Your task to perform on an android device: change notifications settings Image 0: 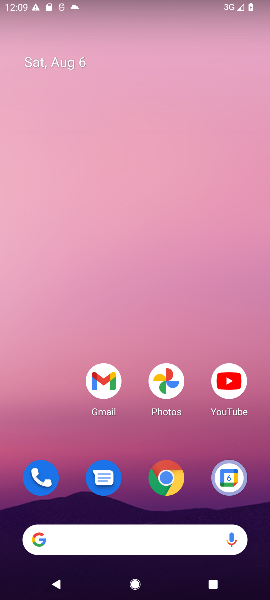
Step 0: drag from (138, 536) to (138, 157)
Your task to perform on an android device: change notifications settings Image 1: 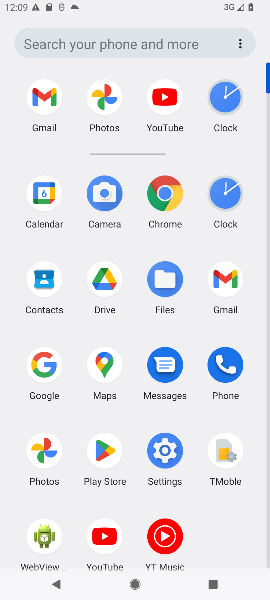
Step 1: click (163, 453)
Your task to perform on an android device: change notifications settings Image 2: 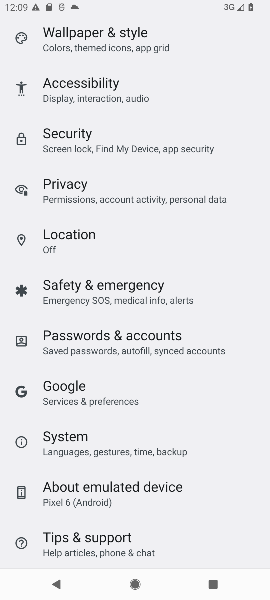
Step 2: drag from (68, 60) to (66, 429)
Your task to perform on an android device: change notifications settings Image 3: 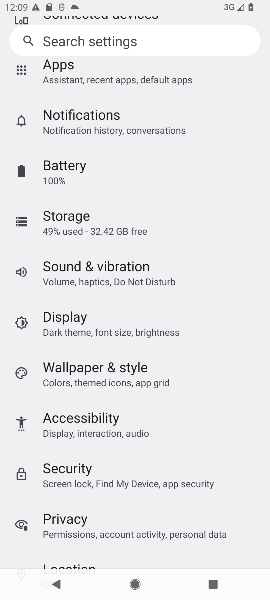
Step 3: click (85, 120)
Your task to perform on an android device: change notifications settings Image 4: 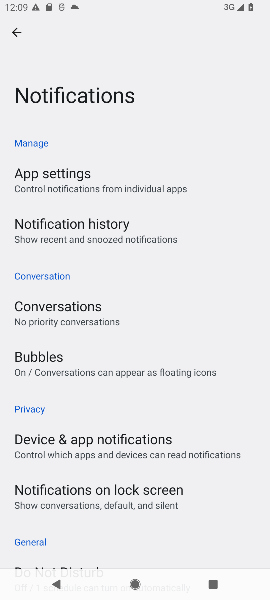
Step 4: click (47, 174)
Your task to perform on an android device: change notifications settings Image 5: 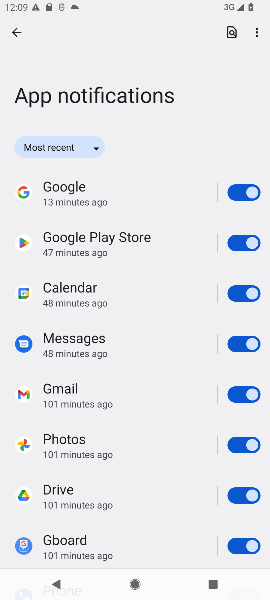
Step 5: click (238, 199)
Your task to perform on an android device: change notifications settings Image 6: 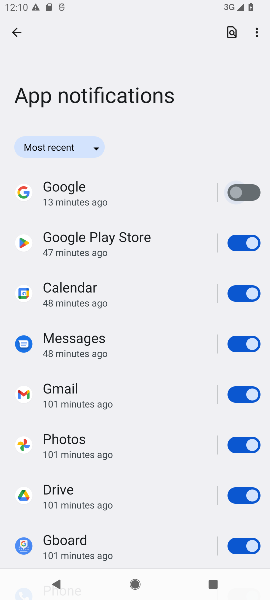
Step 6: click (238, 244)
Your task to perform on an android device: change notifications settings Image 7: 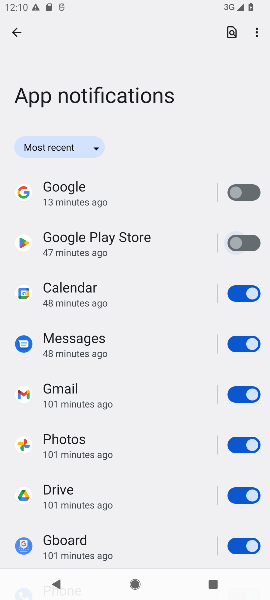
Step 7: click (231, 294)
Your task to perform on an android device: change notifications settings Image 8: 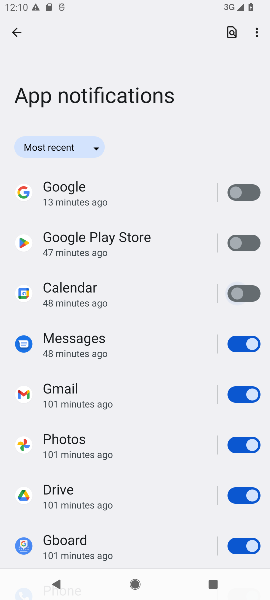
Step 8: click (238, 339)
Your task to perform on an android device: change notifications settings Image 9: 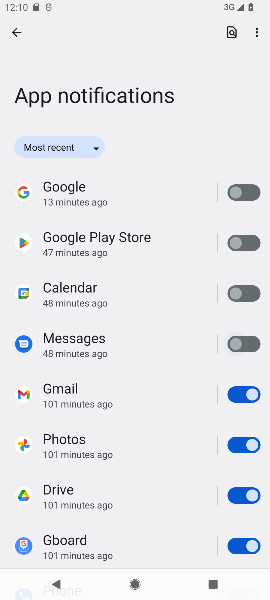
Step 9: click (242, 390)
Your task to perform on an android device: change notifications settings Image 10: 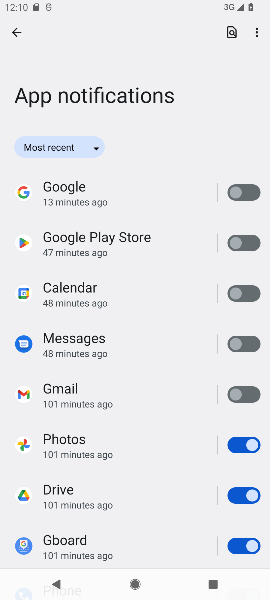
Step 10: click (239, 438)
Your task to perform on an android device: change notifications settings Image 11: 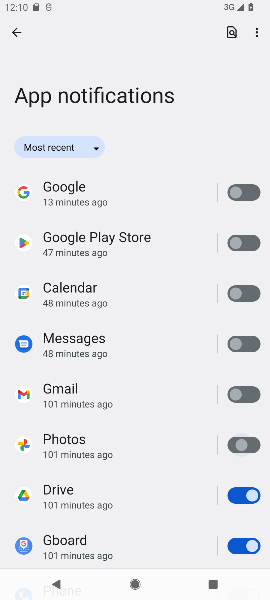
Step 11: click (248, 498)
Your task to perform on an android device: change notifications settings Image 12: 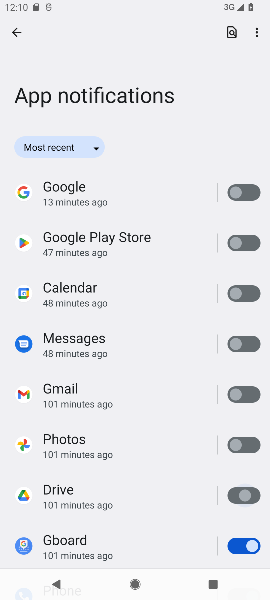
Step 12: click (246, 551)
Your task to perform on an android device: change notifications settings Image 13: 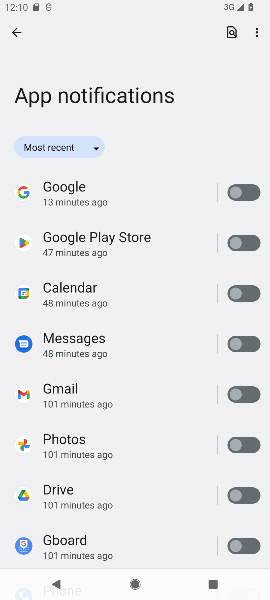
Step 13: task complete